Your task to perform on an android device: What's the price of the Galaxy phone on eBay? Image 0: 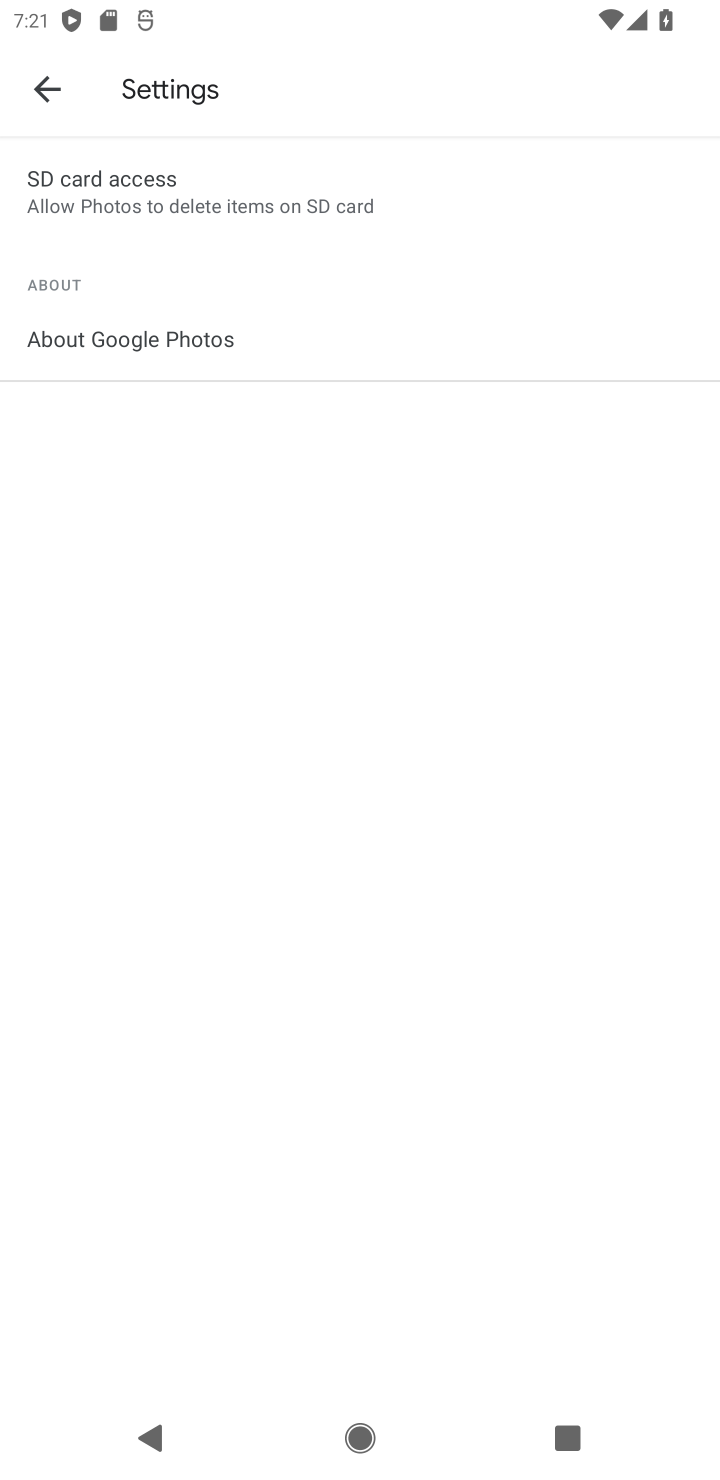
Step 0: press home button
Your task to perform on an android device: What's the price of the Galaxy phone on eBay? Image 1: 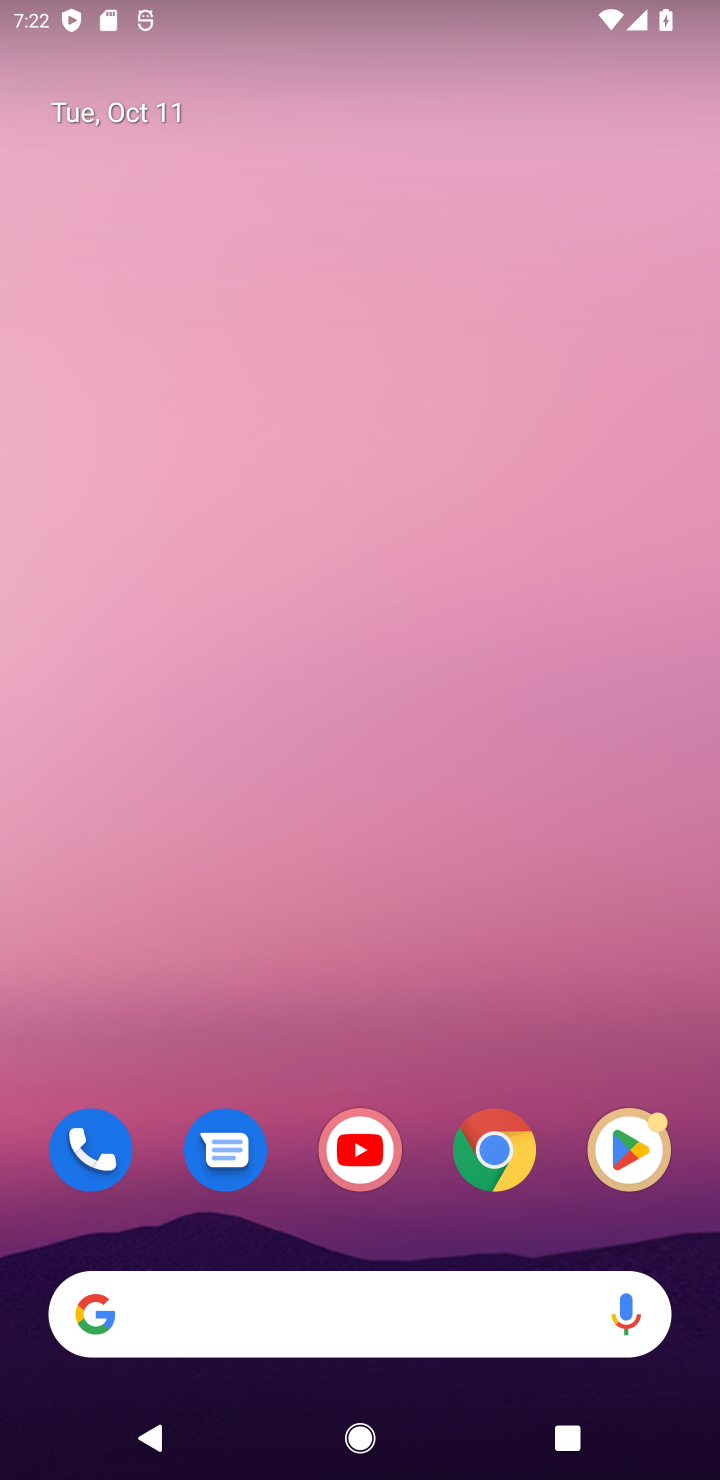
Step 1: click (492, 1140)
Your task to perform on an android device: What's the price of the Galaxy phone on eBay? Image 2: 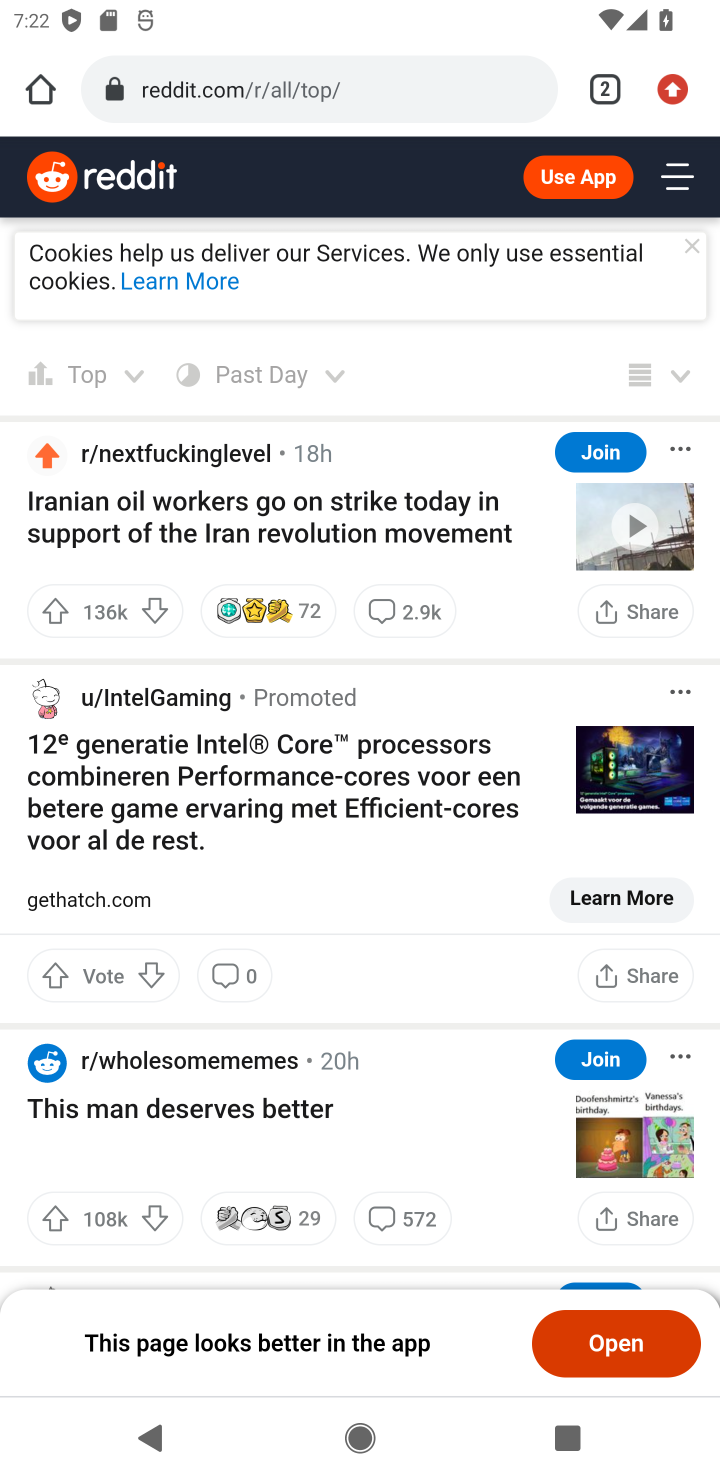
Step 2: click (220, 92)
Your task to perform on an android device: What's the price of the Galaxy phone on eBay? Image 3: 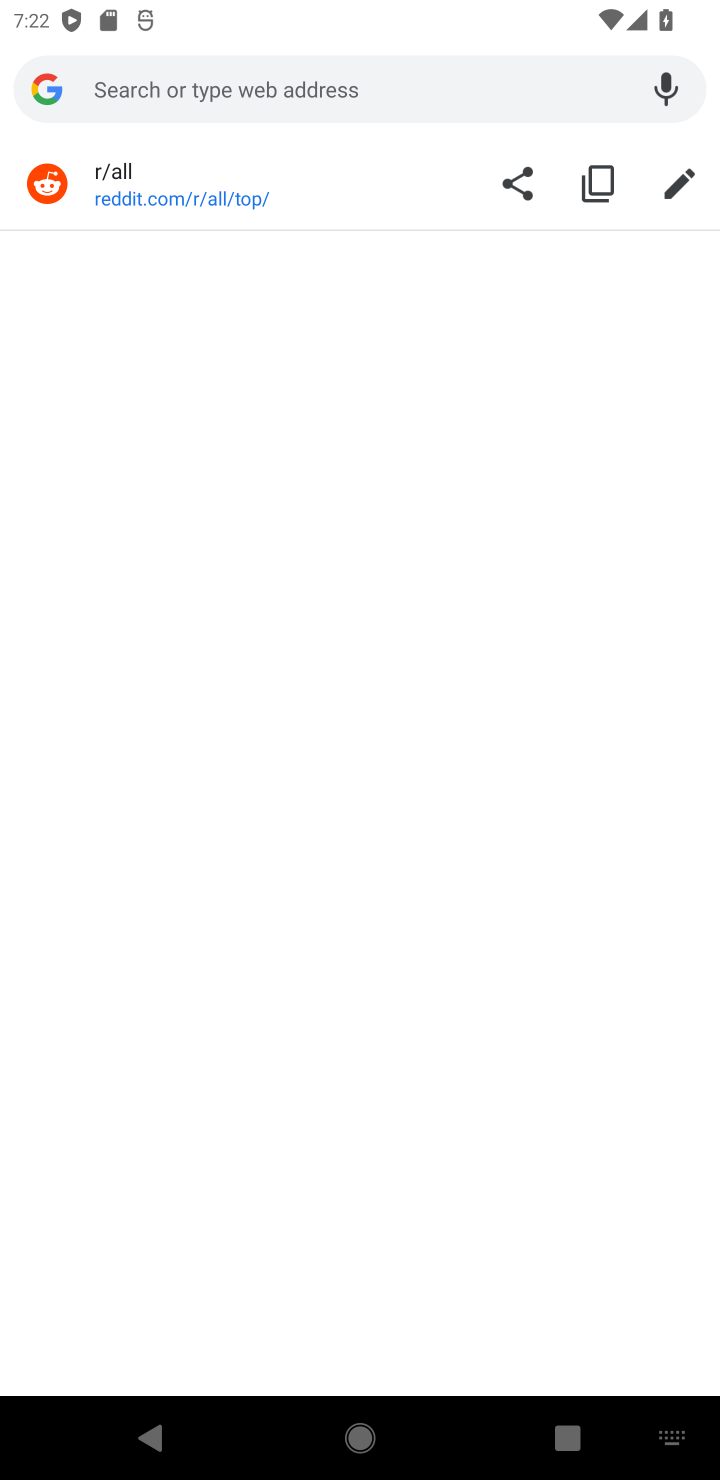
Step 3: type " Galaxy phone on eBay"
Your task to perform on an android device: What's the price of the Galaxy phone on eBay? Image 4: 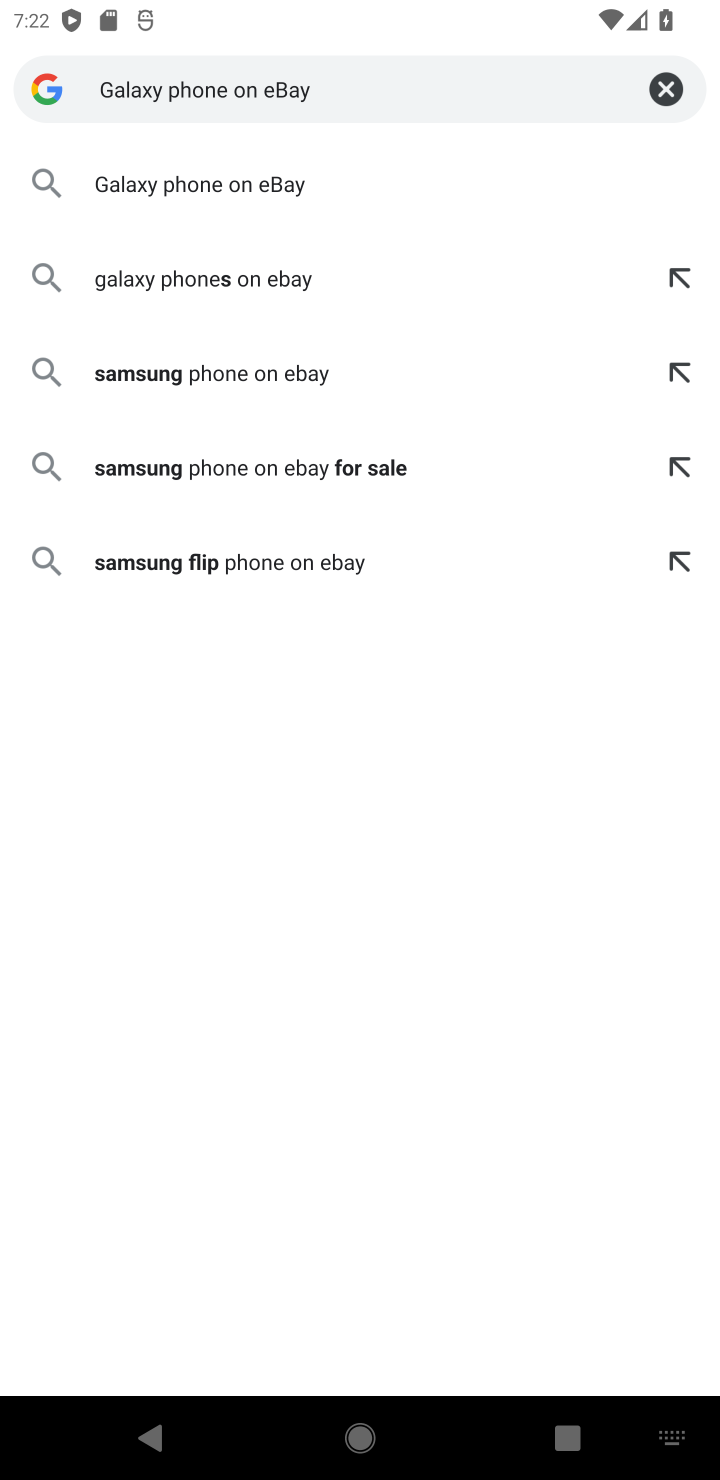
Step 4: click (195, 184)
Your task to perform on an android device: What's the price of the Galaxy phone on eBay? Image 5: 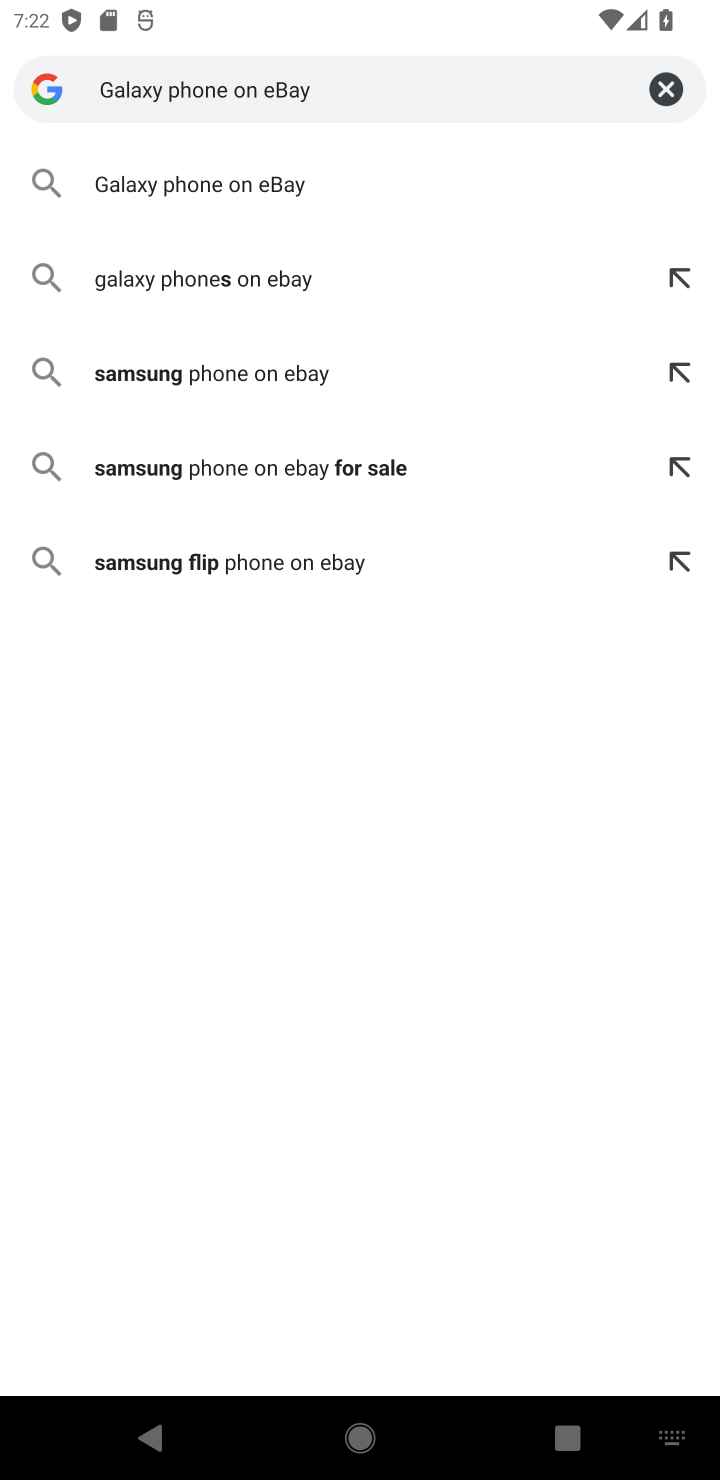
Step 5: click (157, 190)
Your task to perform on an android device: What's the price of the Galaxy phone on eBay? Image 6: 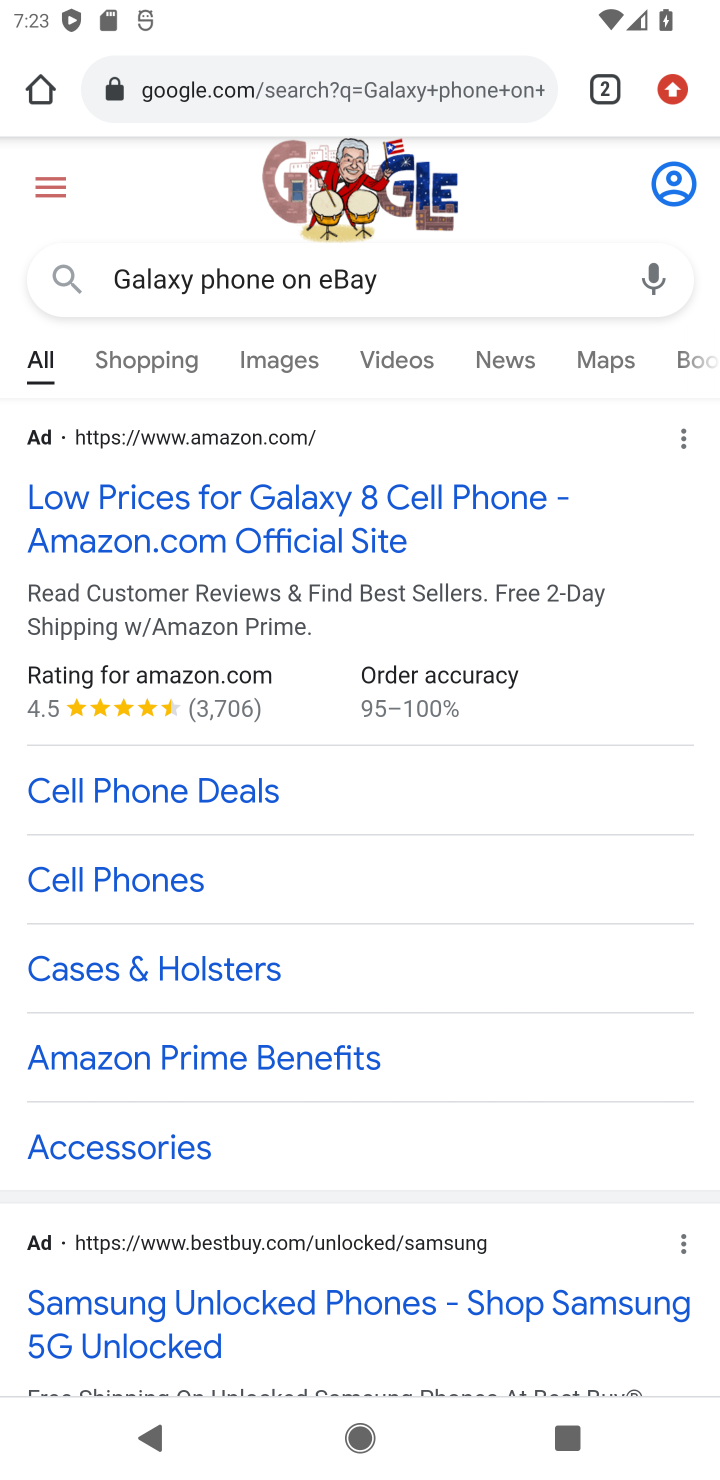
Step 6: click (140, 363)
Your task to perform on an android device: What's the price of the Galaxy phone on eBay? Image 7: 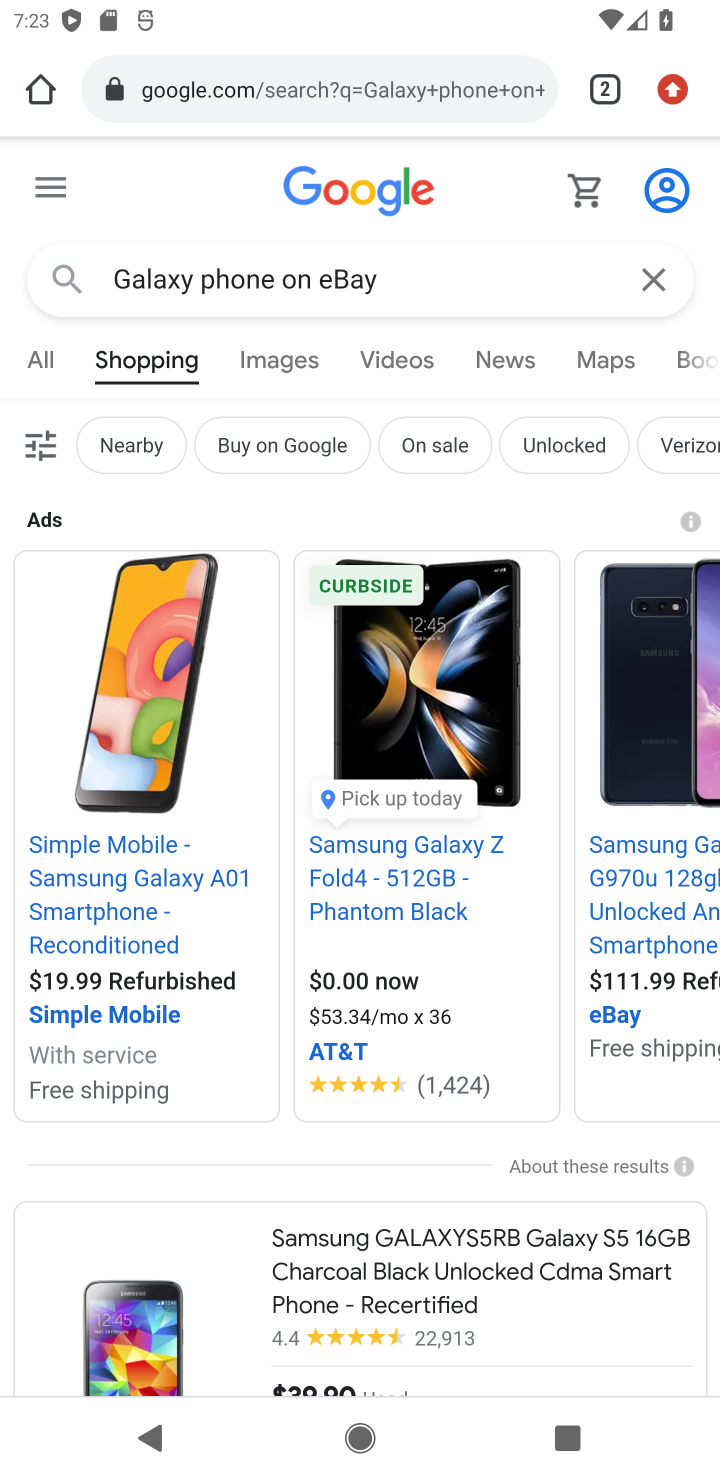
Step 7: click (631, 808)
Your task to perform on an android device: What's the price of the Galaxy phone on eBay? Image 8: 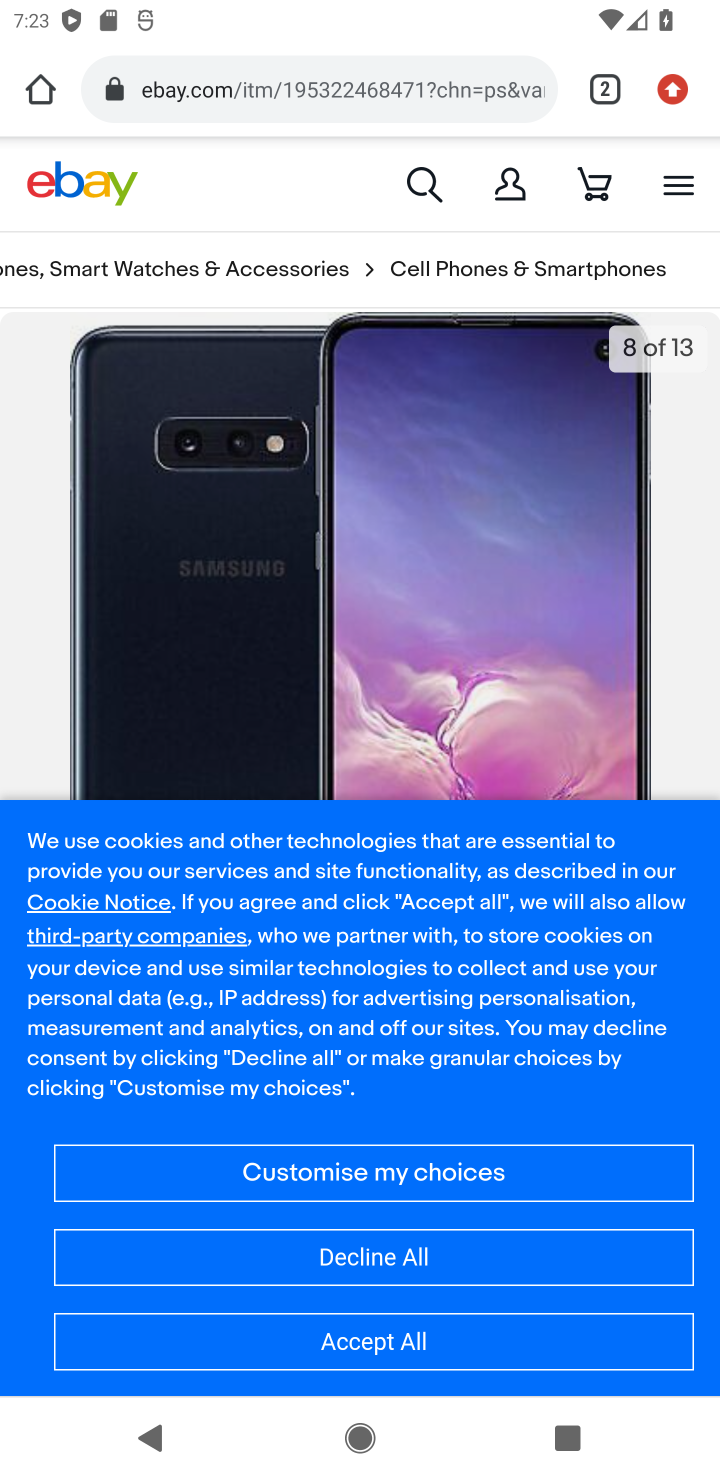
Step 8: task complete